Your task to perform on an android device: Show the shopping cart on bestbuy.com. Search for macbook on bestbuy.com, select the first entry, add it to the cart, then select checkout. Image 0: 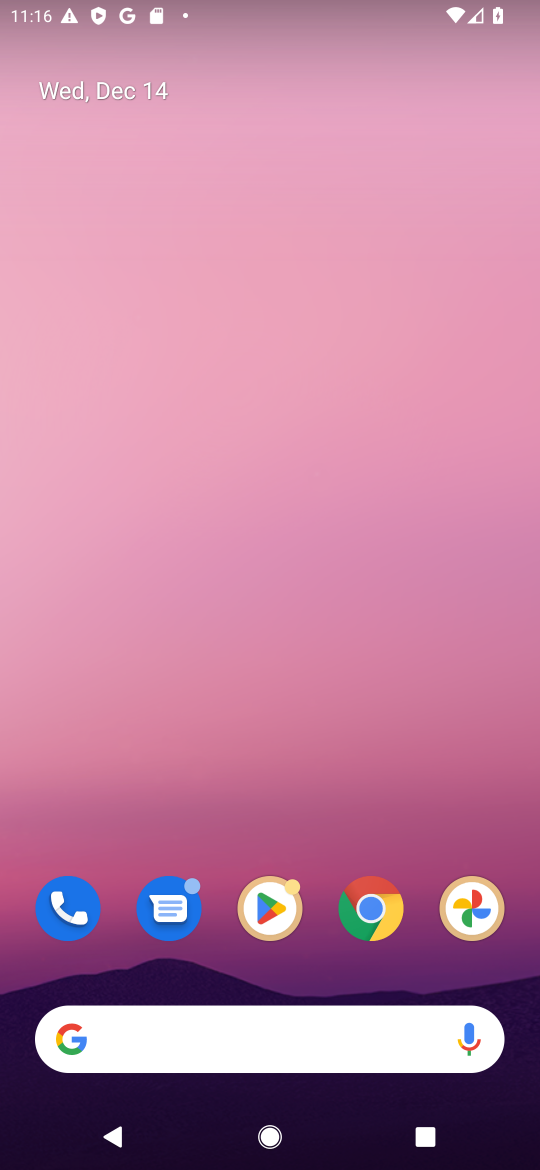
Step 0: click (381, 1028)
Your task to perform on an android device: Show the shopping cart on bestbuy.com. Search for macbook on bestbuy.com, select the first entry, add it to the cart, then select checkout. Image 1: 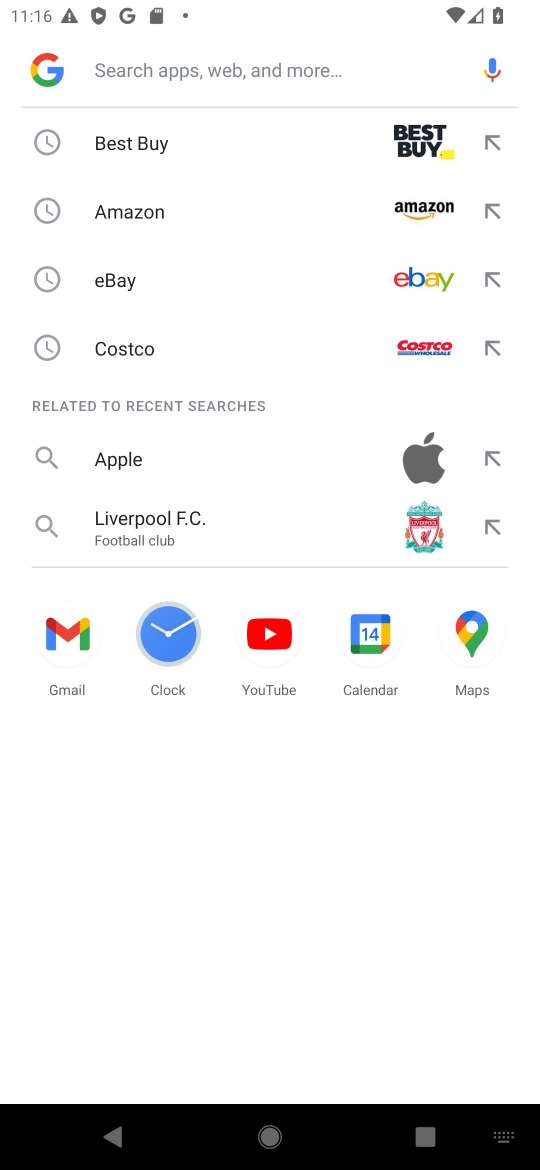
Step 1: click (152, 140)
Your task to perform on an android device: Show the shopping cart on bestbuy.com. Search for macbook on bestbuy.com, select the first entry, add it to the cart, then select checkout. Image 2: 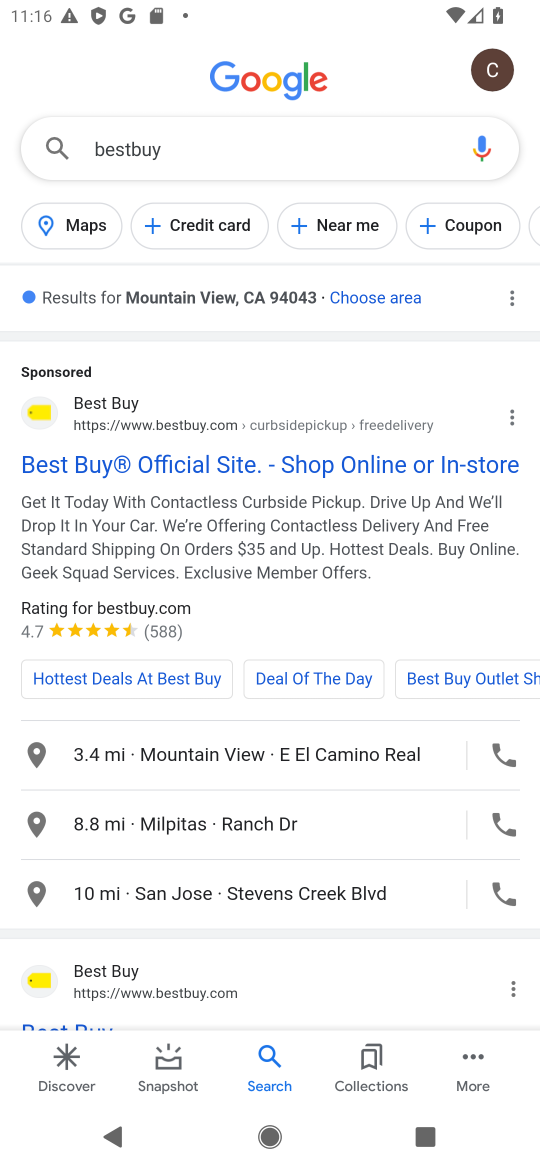
Step 2: click (168, 457)
Your task to perform on an android device: Show the shopping cart on bestbuy.com. Search for macbook on bestbuy.com, select the first entry, add it to the cart, then select checkout. Image 3: 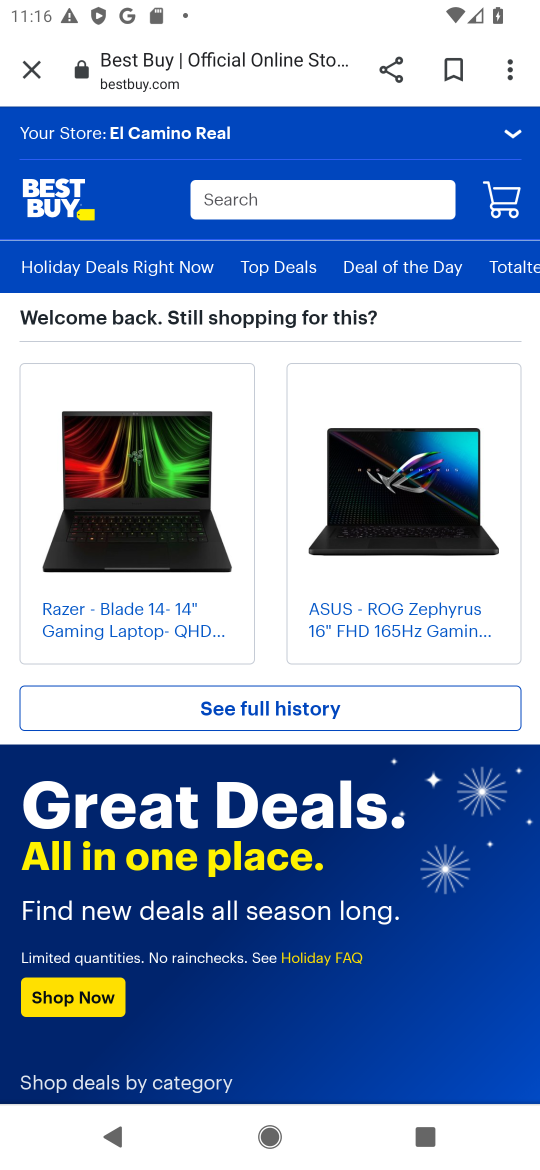
Step 3: click (302, 214)
Your task to perform on an android device: Show the shopping cart on bestbuy.com. Search for macbook on bestbuy.com, select the first entry, add it to the cart, then select checkout. Image 4: 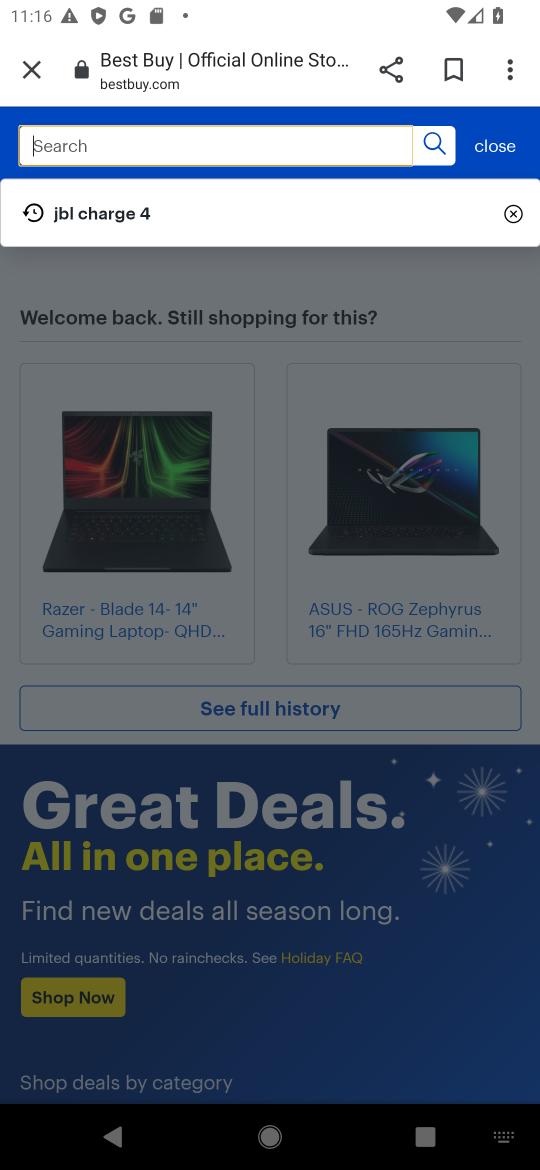
Step 4: type "macbook "
Your task to perform on an android device: Show the shopping cart on bestbuy.com. Search for macbook on bestbuy.com, select the first entry, add it to the cart, then select checkout. Image 5: 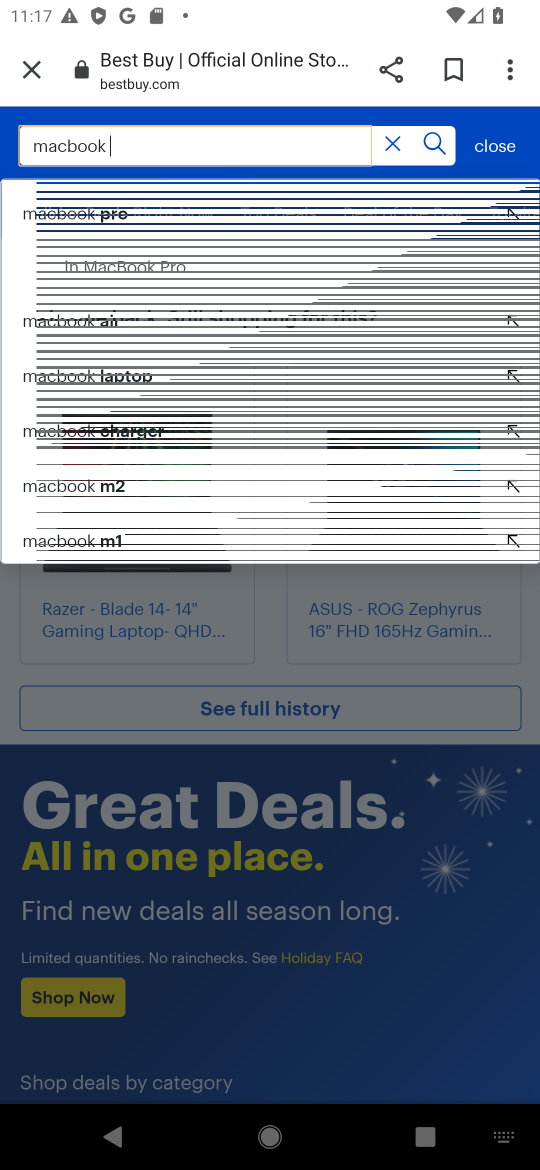
Step 5: click (54, 217)
Your task to perform on an android device: Show the shopping cart on bestbuy.com. Search for macbook on bestbuy.com, select the first entry, add it to the cart, then select checkout. Image 6: 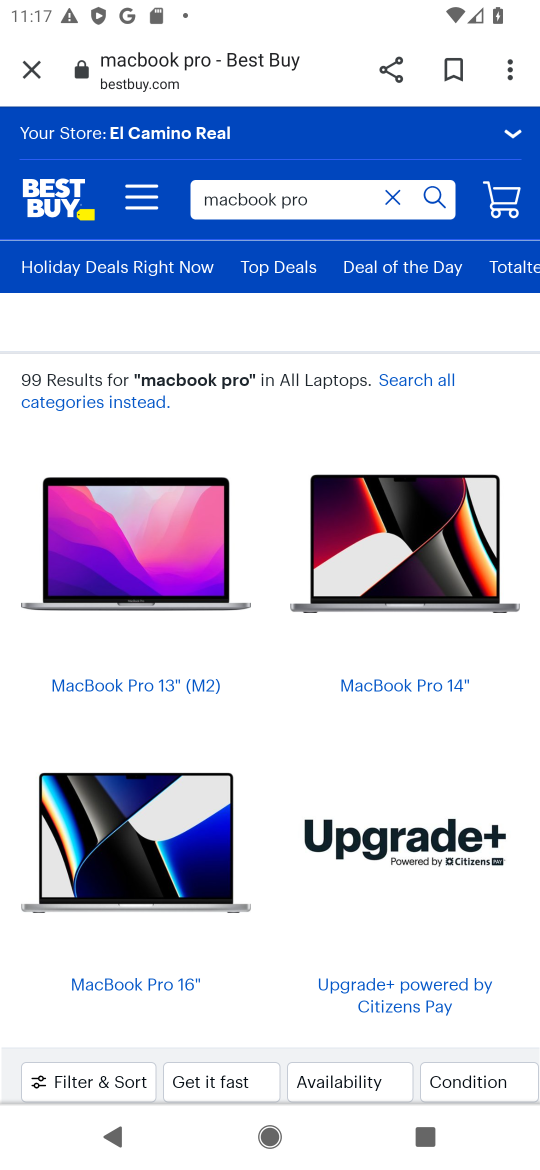
Step 6: click (93, 549)
Your task to perform on an android device: Show the shopping cart on bestbuy.com. Search for macbook on bestbuy.com, select the first entry, add it to the cart, then select checkout. Image 7: 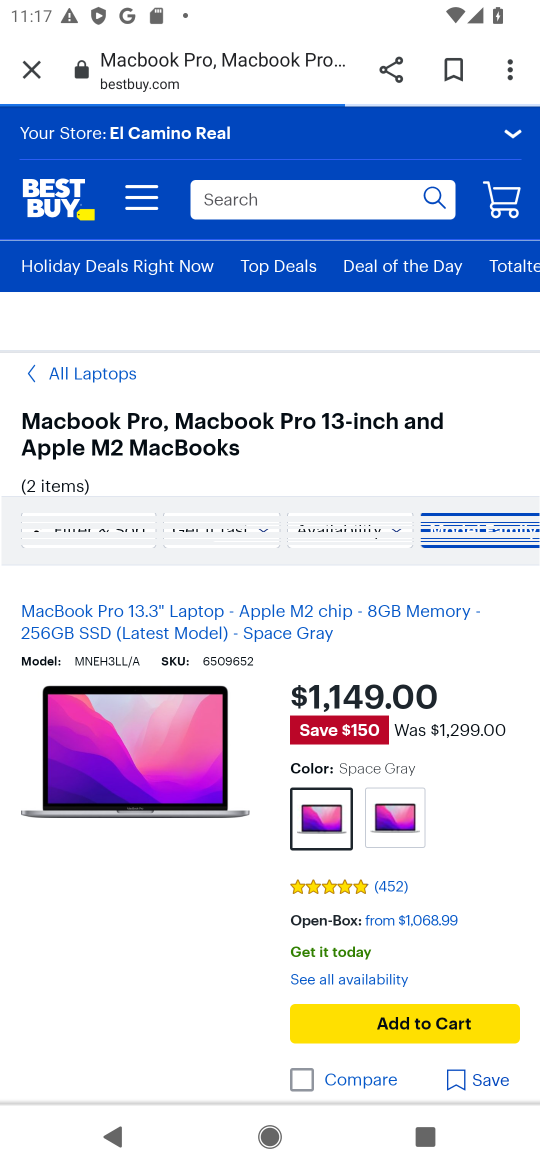
Step 7: drag from (180, 1031) to (172, 768)
Your task to perform on an android device: Show the shopping cart on bestbuy.com. Search for macbook on bestbuy.com, select the first entry, add it to the cart, then select checkout. Image 8: 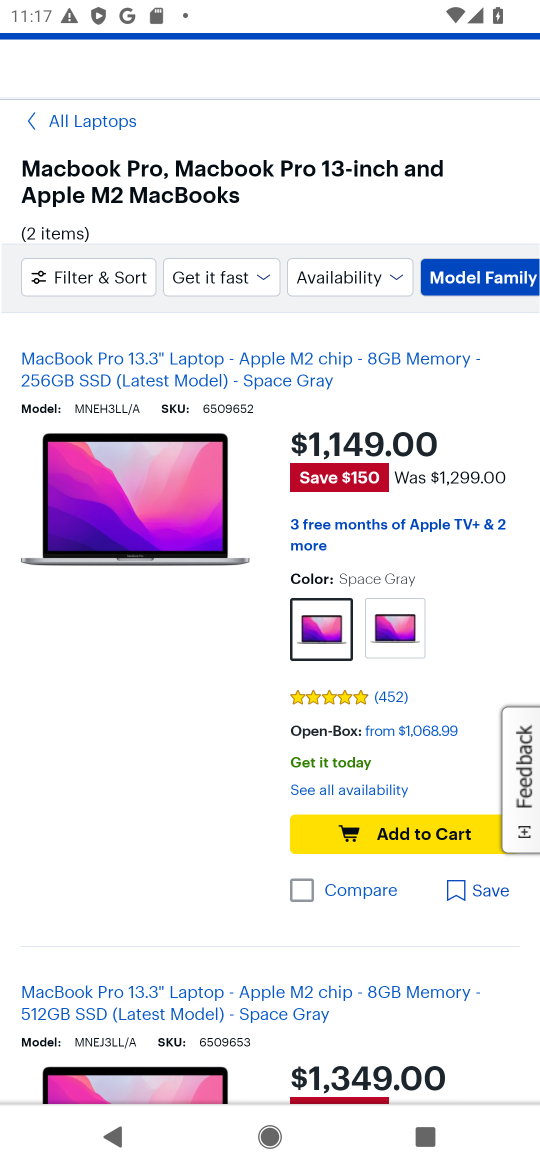
Step 8: click (416, 823)
Your task to perform on an android device: Show the shopping cart on bestbuy.com. Search for macbook on bestbuy.com, select the first entry, add it to the cart, then select checkout. Image 9: 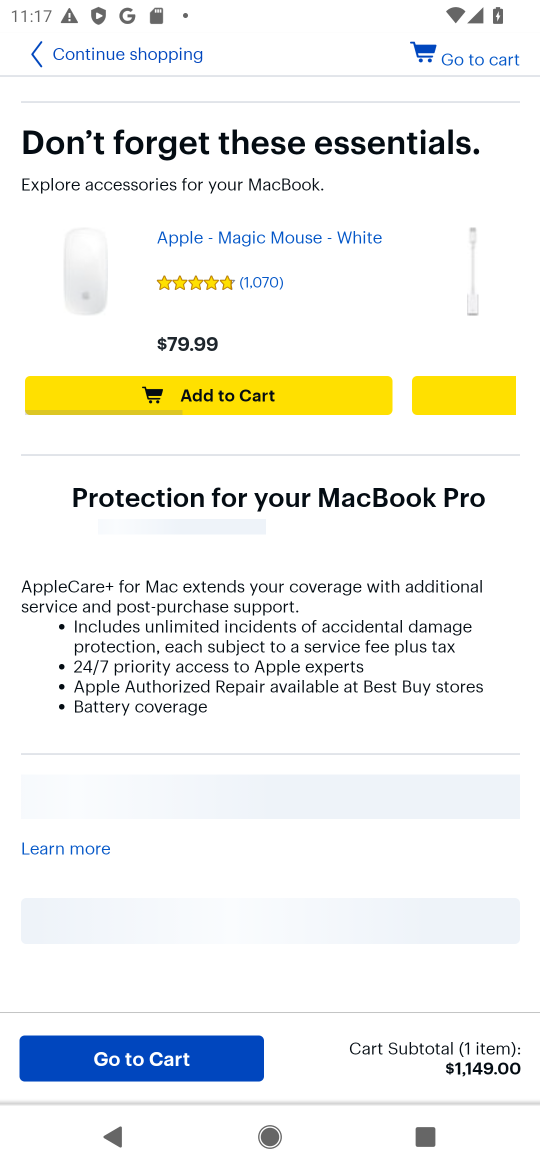
Step 9: click (148, 1054)
Your task to perform on an android device: Show the shopping cart on bestbuy.com. Search for macbook on bestbuy.com, select the first entry, add it to the cart, then select checkout. Image 10: 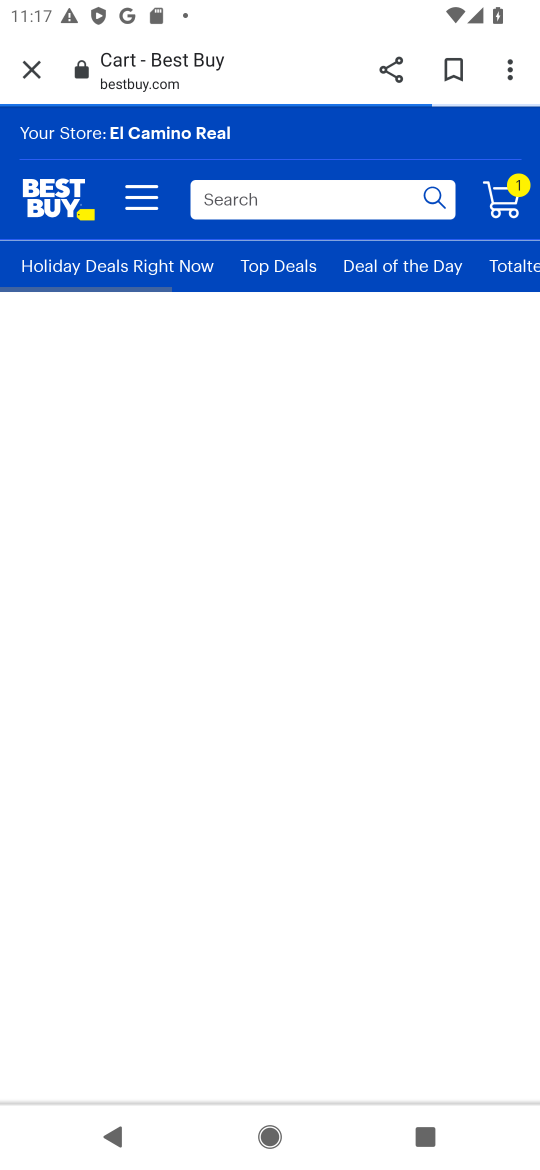
Step 10: task complete